Your task to perform on an android device: Open my contact list Image 0: 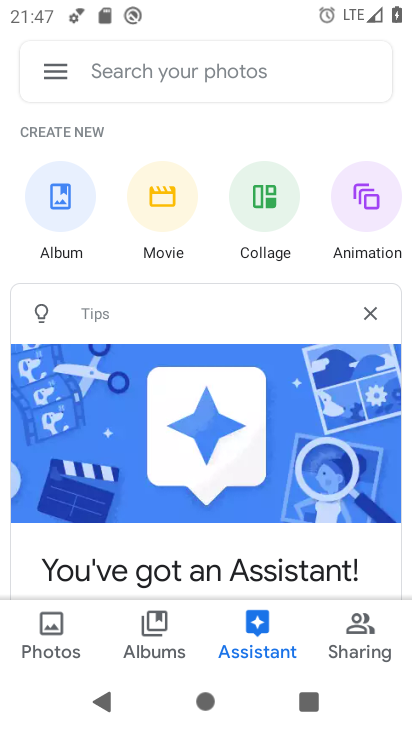
Step 0: press home button
Your task to perform on an android device: Open my contact list Image 1: 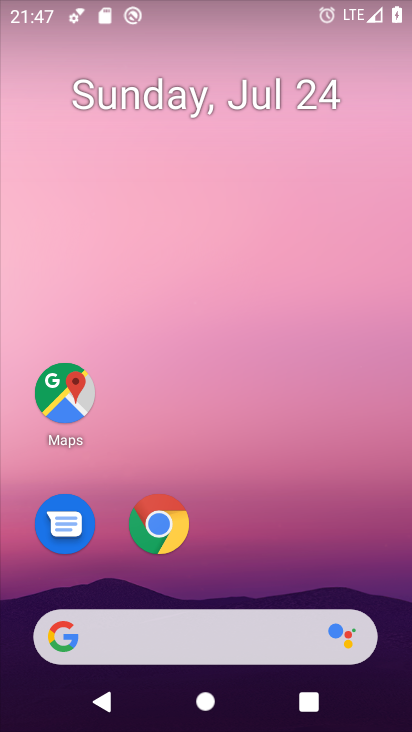
Step 1: drag from (265, 574) to (267, 32)
Your task to perform on an android device: Open my contact list Image 2: 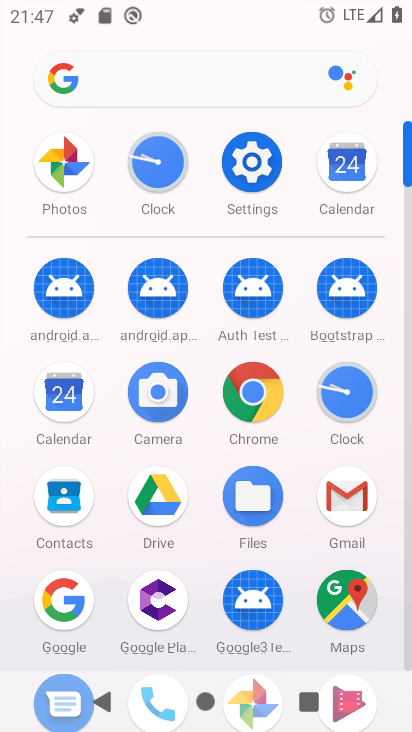
Step 2: click (64, 500)
Your task to perform on an android device: Open my contact list Image 3: 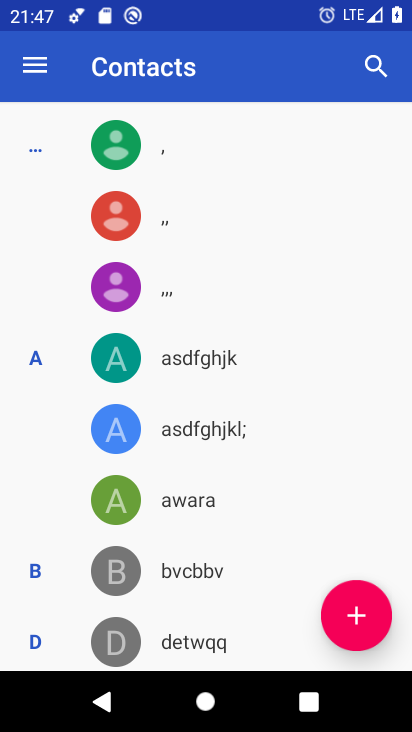
Step 3: task complete